Your task to perform on an android device: open app "Etsy: Buy & Sell Unique Items" (install if not already installed) and enter user name: "camp@inbox.com" and password: "unrelated" Image 0: 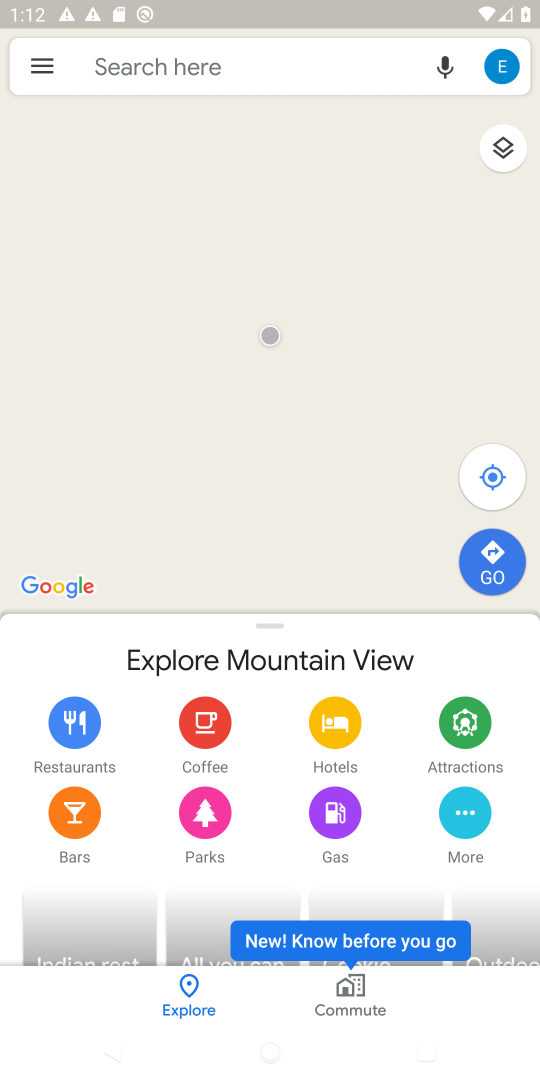
Step 0: press home button
Your task to perform on an android device: open app "Etsy: Buy & Sell Unique Items" (install if not already installed) and enter user name: "camp@inbox.com" and password: "unrelated" Image 1: 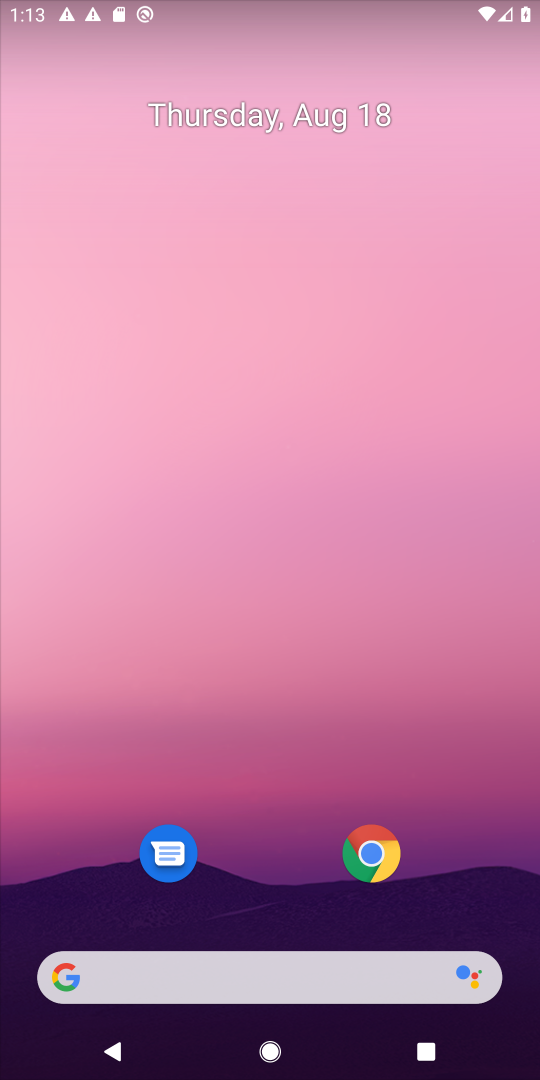
Step 1: drag from (329, 832) to (539, 228)
Your task to perform on an android device: open app "Etsy: Buy & Sell Unique Items" (install if not already installed) and enter user name: "camp@inbox.com" and password: "unrelated" Image 2: 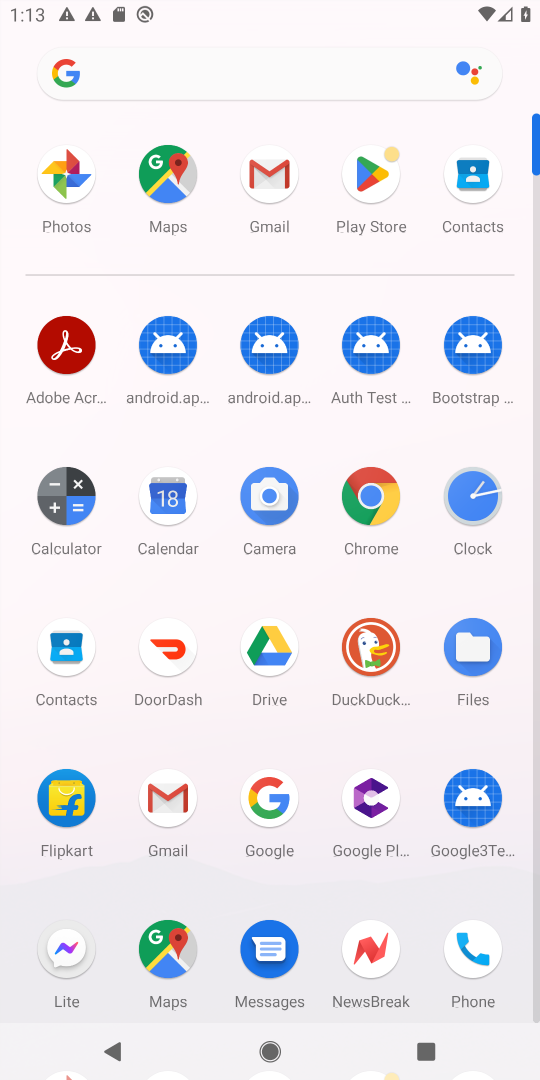
Step 2: click (387, 193)
Your task to perform on an android device: open app "Etsy: Buy & Sell Unique Items" (install if not already installed) and enter user name: "camp@inbox.com" and password: "unrelated" Image 3: 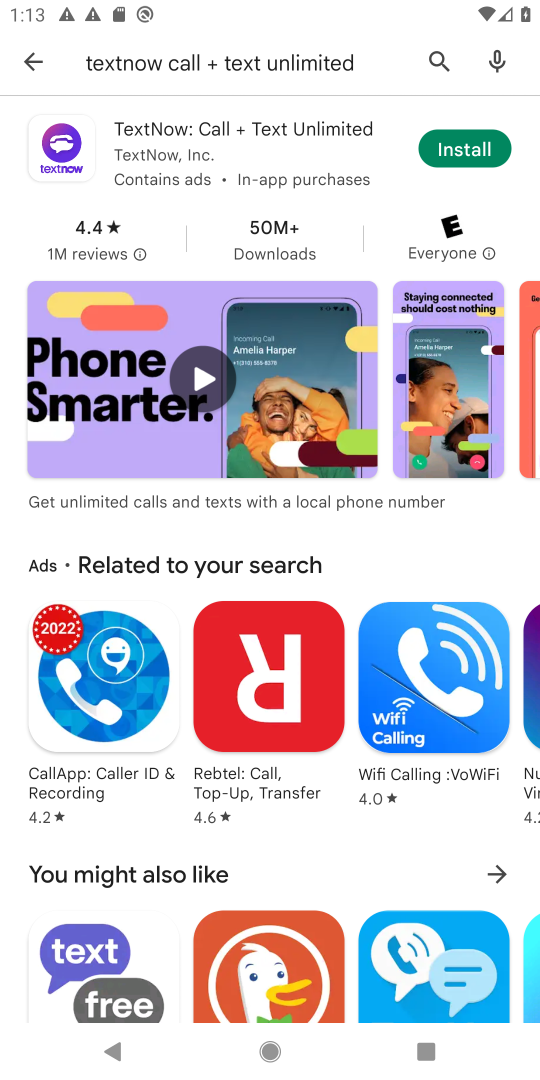
Step 3: click (28, 68)
Your task to perform on an android device: open app "Etsy: Buy & Sell Unique Items" (install if not already installed) and enter user name: "camp@inbox.com" and password: "unrelated" Image 4: 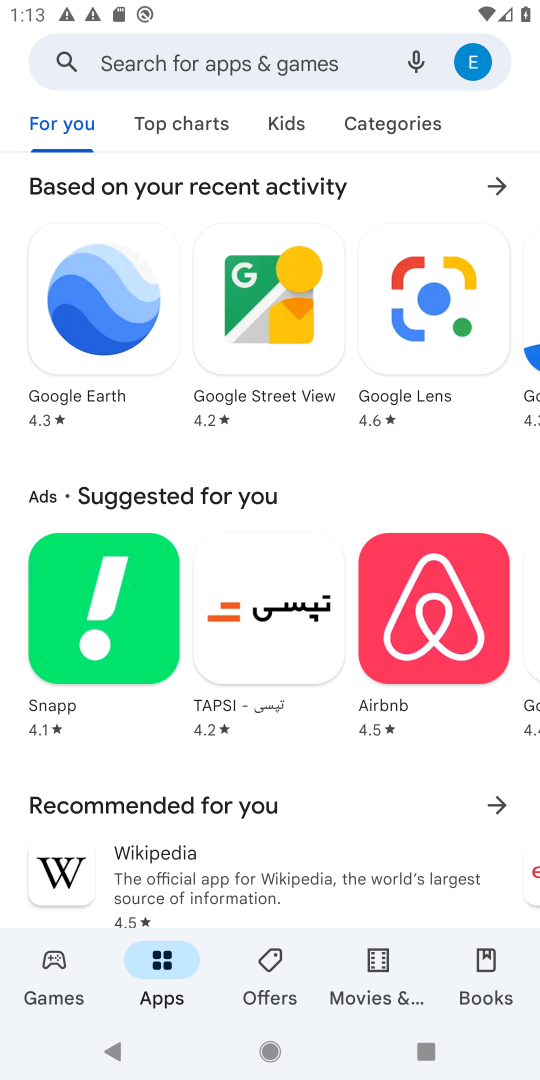
Step 4: click (125, 79)
Your task to perform on an android device: open app "Etsy: Buy & Sell Unique Items" (install if not already installed) and enter user name: "camp@inbox.com" and password: "unrelated" Image 5: 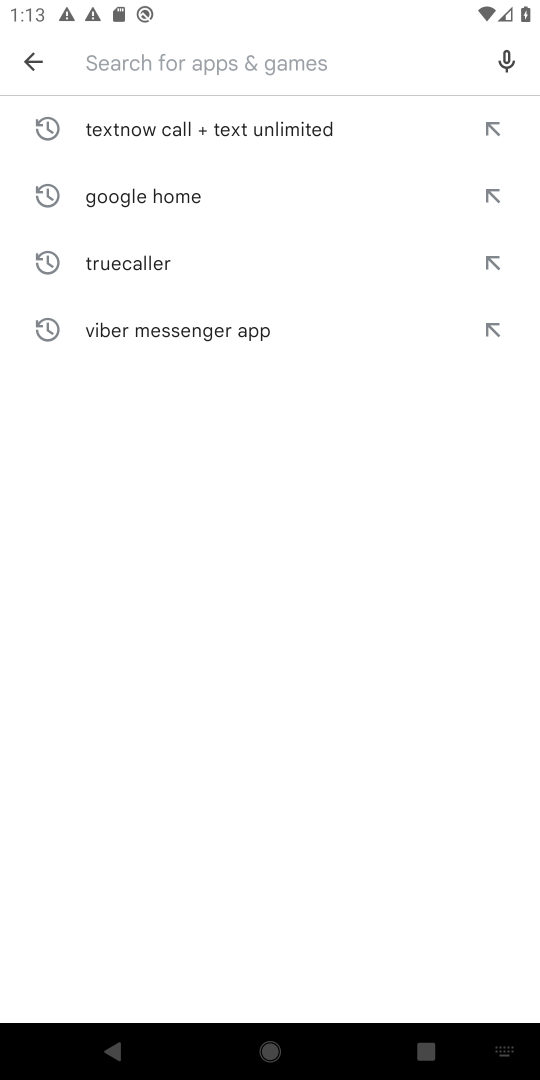
Step 5: type "Etsy: Buy & Sell Unique Items"
Your task to perform on an android device: open app "Etsy: Buy & Sell Unique Items" (install if not already installed) and enter user name: "camp@inbox.com" and password: "unrelated" Image 6: 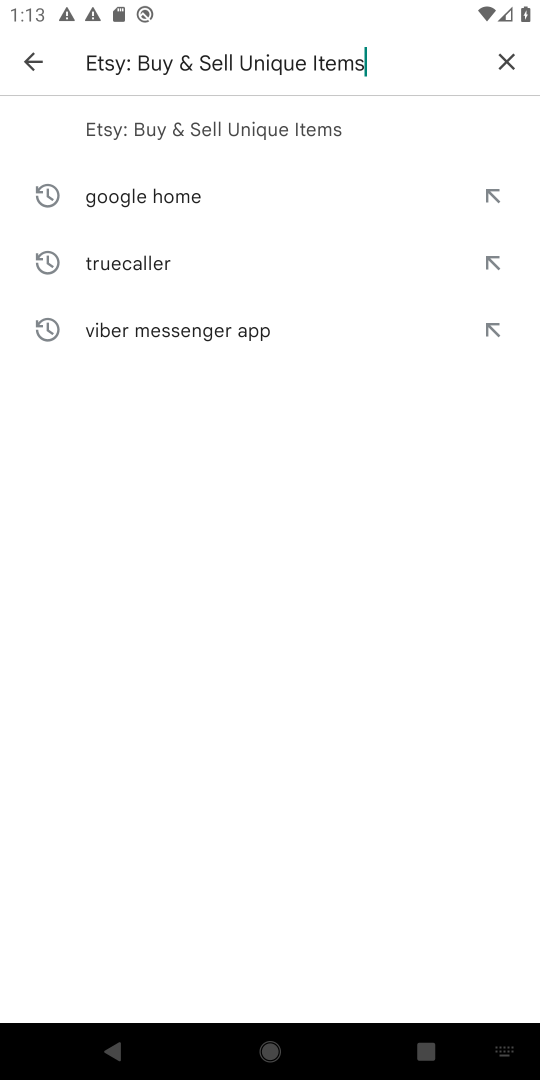
Step 6: type ""
Your task to perform on an android device: open app "Etsy: Buy & Sell Unique Items" (install if not already installed) and enter user name: "camp@inbox.com" and password: "unrelated" Image 7: 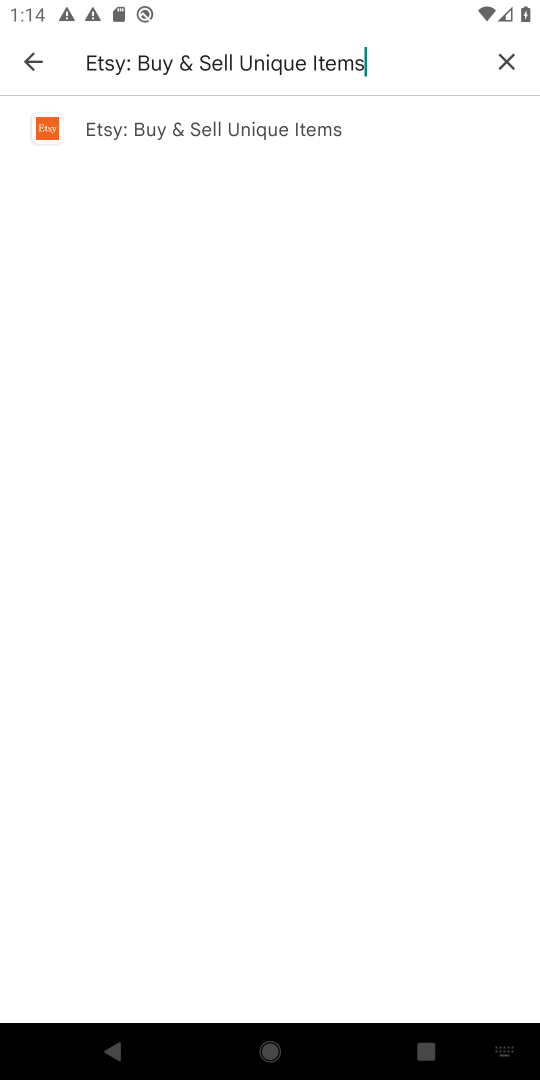
Step 7: click (363, 126)
Your task to perform on an android device: open app "Etsy: Buy & Sell Unique Items" (install if not already installed) and enter user name: "camp@inbox.com" and password: "unrelated" Image 8: 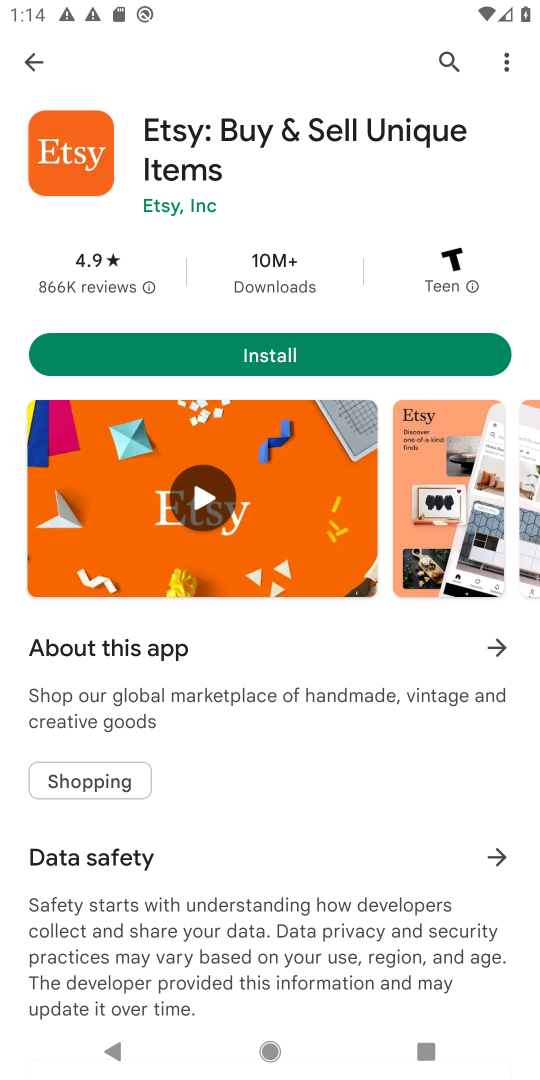
Step 8: click (284, 357)
Your task to perform on an android device: open app "Etsy: Buy & Sell Unique Items" (install if not already installed) and enter user name: "camp@inbox.com" and password: "unrelated" Image 9: 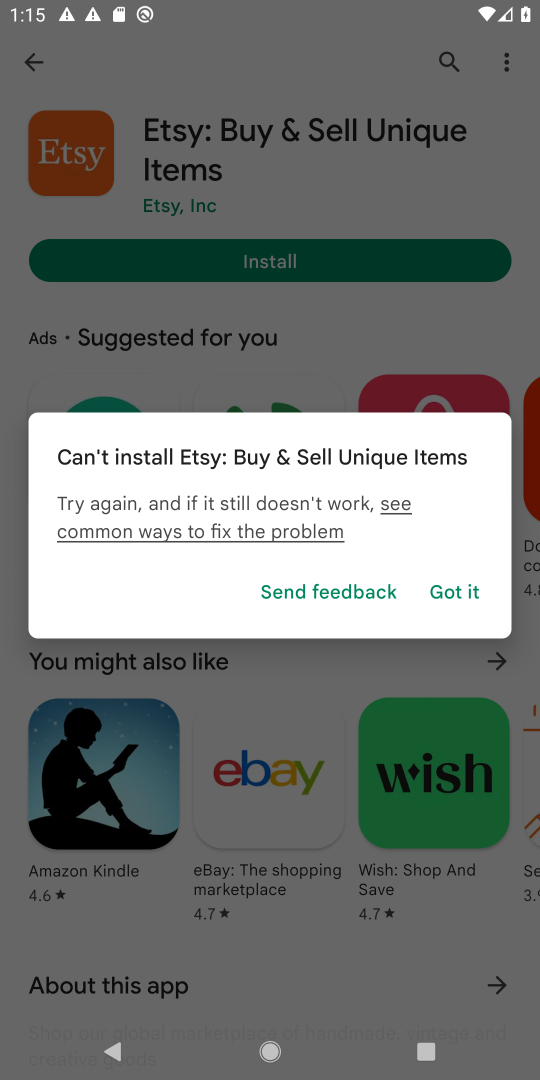
Step 9: click (464, 589)
Your task to perform on an android device: open app "Etsy: Buy & Sell Unique Items" (install if not already installed) and enter user name: "camp@inbox.com" and password: "unrelated" Image 10: 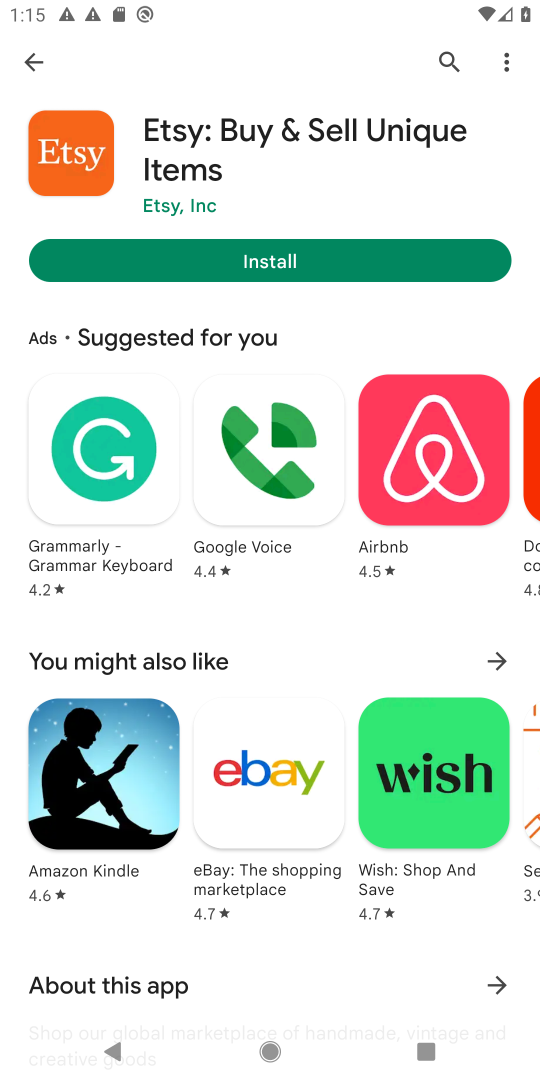
Step 10: click (381, 277)
Your task to perform on an android device: open app "Etsy: Buy & Sell Unique Items" (install if not already installed) and enter user name: "camp@inbox.com" and password: "unrelated" Image 11: 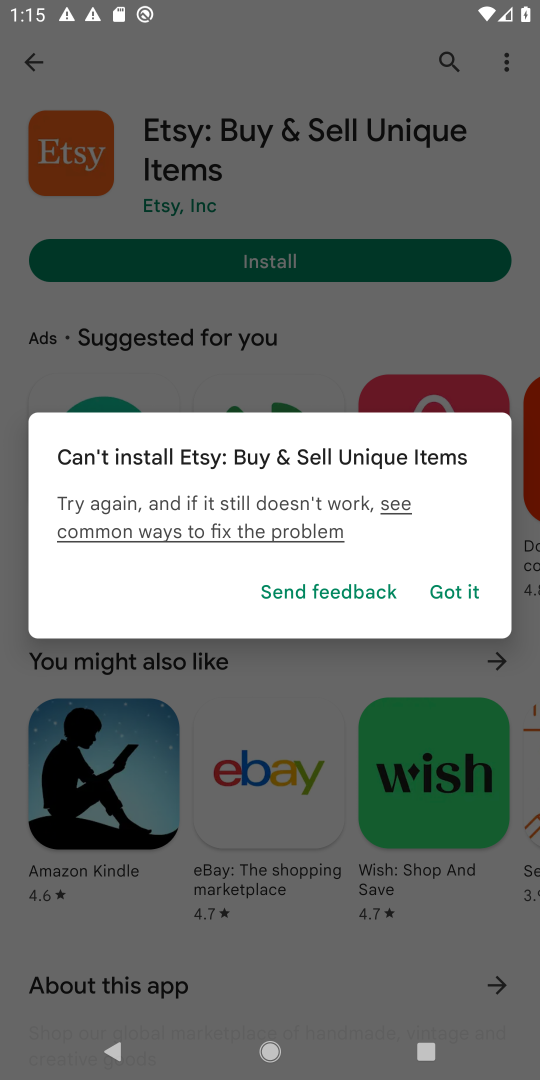
Step 11: task complete